Your task to perform on an android device: Open the calendar and show me this week's events? Image 0: 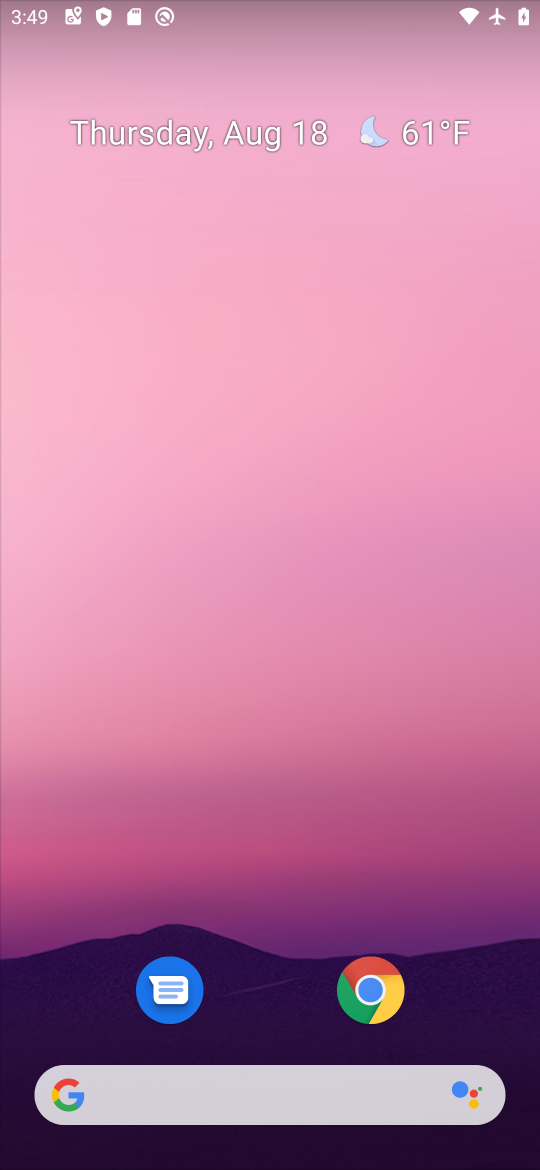
Step 0: click (119, 136)
Your task to perform on an android device: Open the calendar and show me this week's events? Image 1: 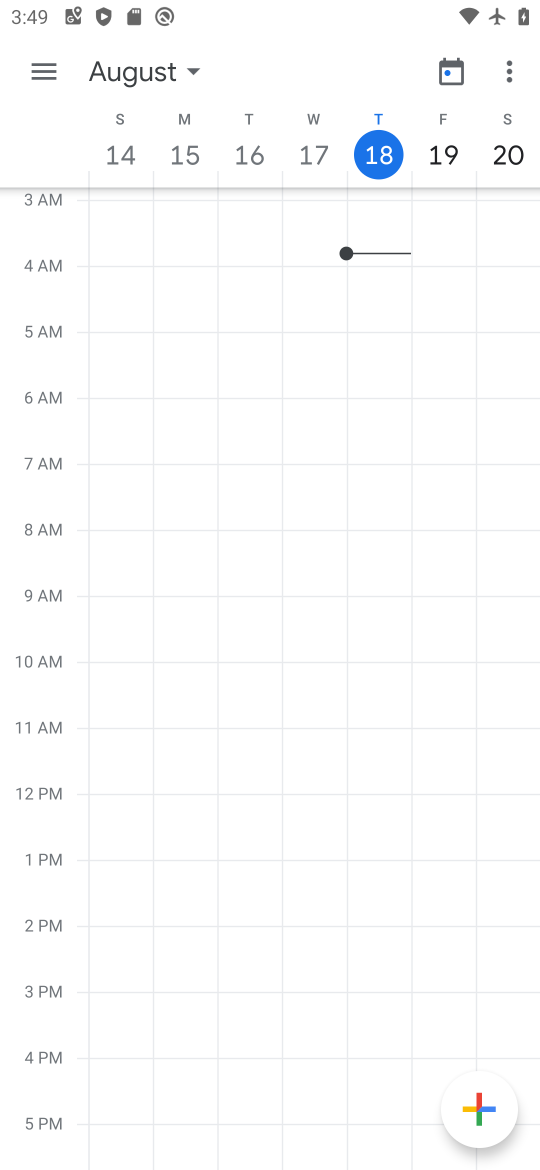
Step 1: task complete